Your task to perform on an android device: Do I have any events today? Image 0: 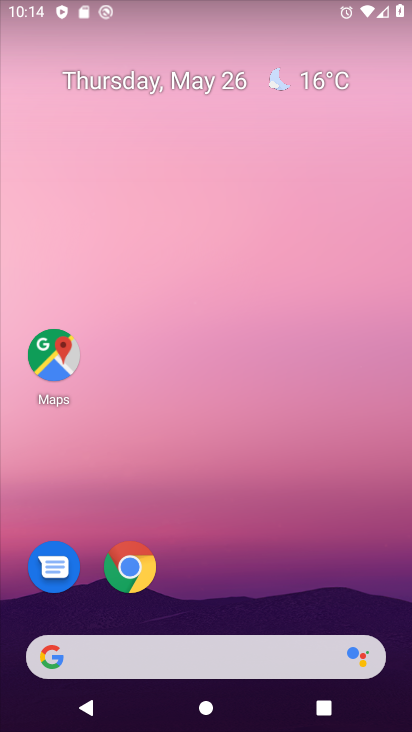
Step 0: drag from (390, 693) to (374, 244)
Your task to perform on an android device: Do I have any events today? Image 1: 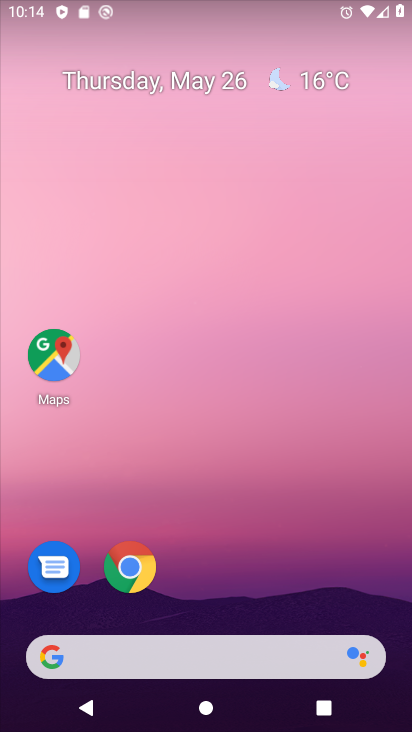
Step 1: drag from (396, 712) to (355, 172)
Your task to perform on an android device: Do I have any events today? Image 2: 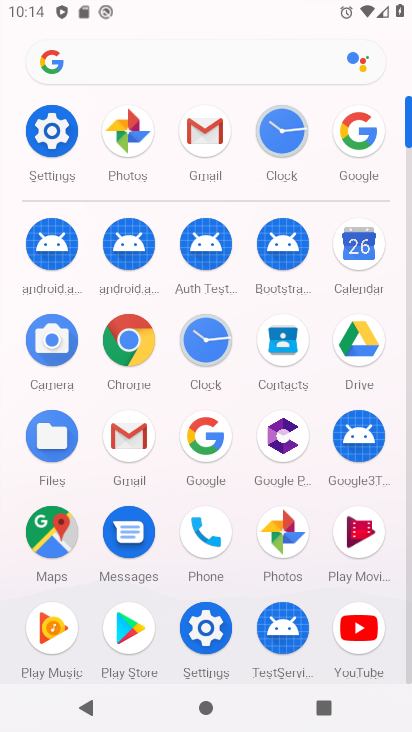
Step 2: click (378, 252)
Your task to perform on an android device: Do I have any events today? Image 3: 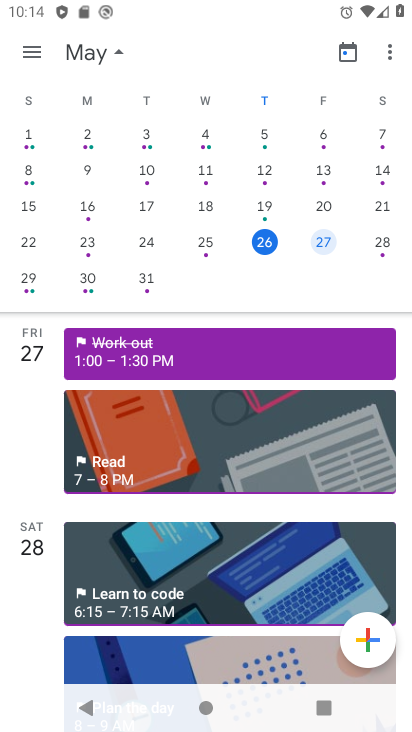
Step 3: click (260, 232)
Your task to perform on an android device: Do I have any events today? Image 4: 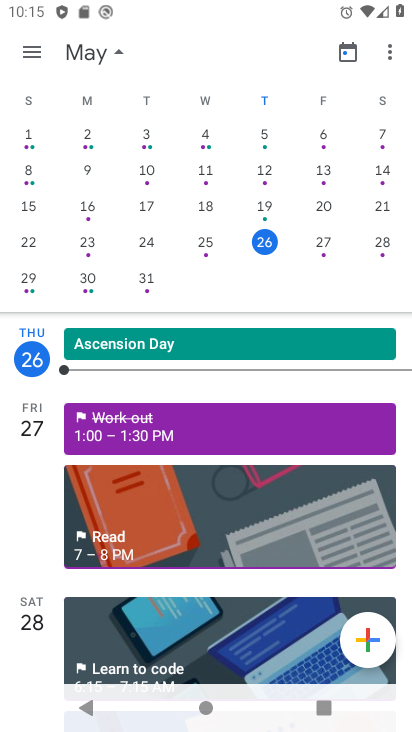
Step 4: task complete